Your task to perform on an android device: Go to display settings Image 0: 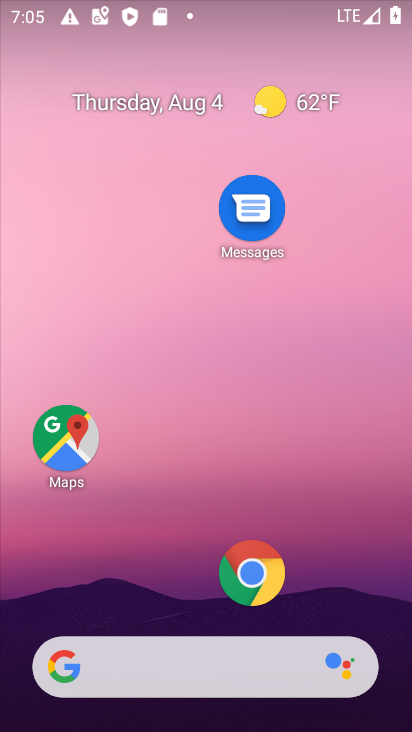
Step 0: press home button
Your task to perform on an android device: Go to display settings Image 1: 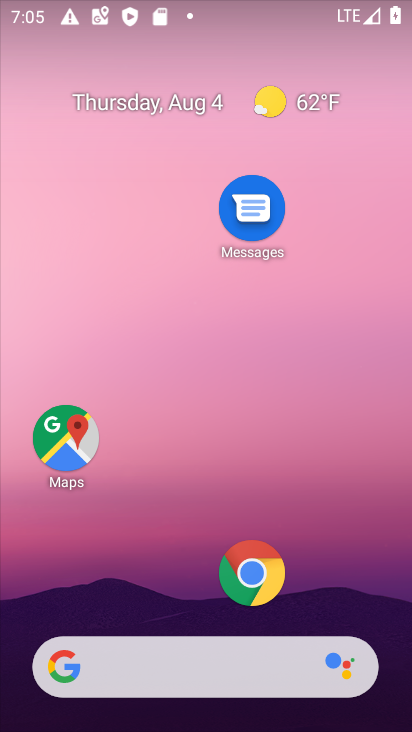
Step 1: drag from (156, 605) to (99, 32)
Your task to perform on an android device: Go to display settings Image 2: 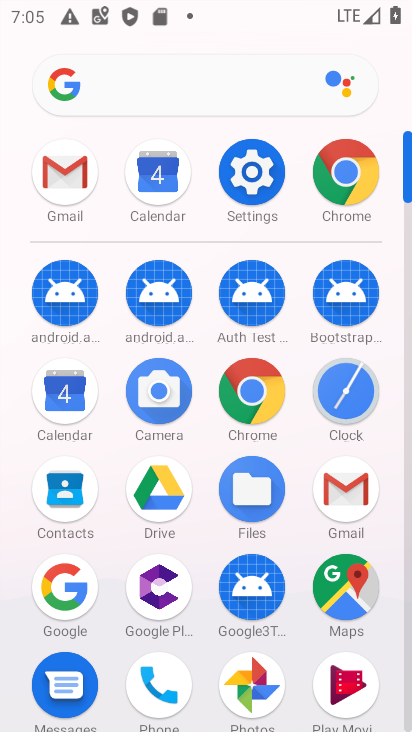
Step 2: click (252, 186)
Your task to perform on an android device: Go to display settings Image 3: 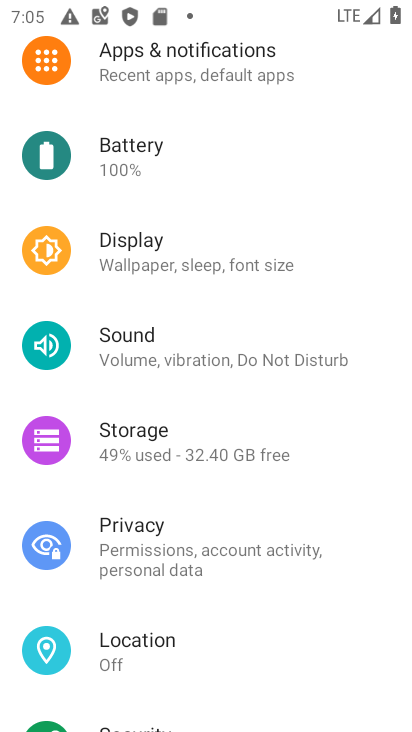
Step 3: click (146, 255)
Your task to perform on an android device: Go to display settings Image 4: 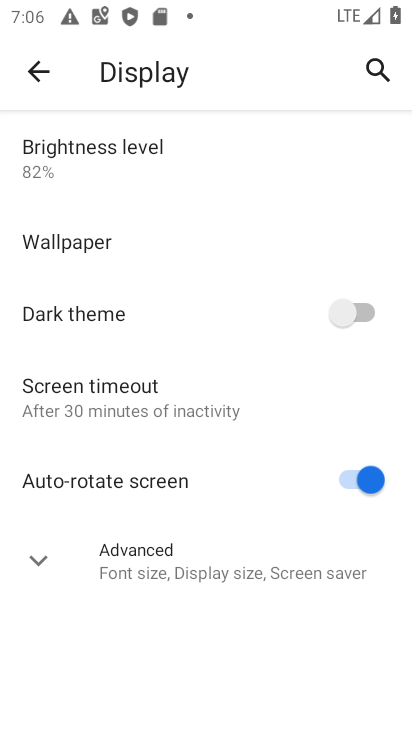
Step 4: task complete